Your task to perform on an android device: Go to Reddit.com Image 0: 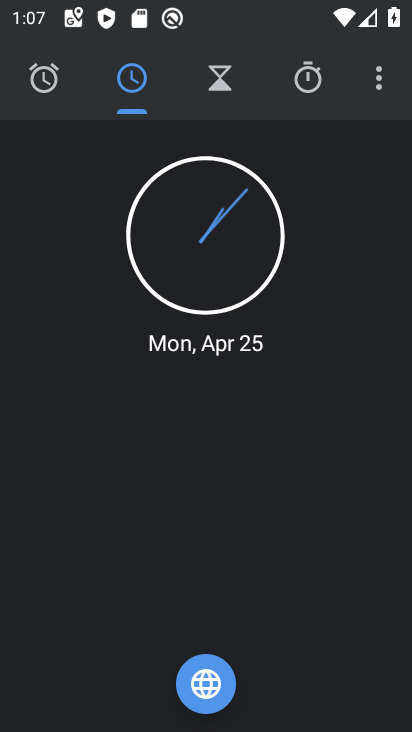
Step 0: press home button
Your task to perform on an android device: Go to Reddit.com Image 1: 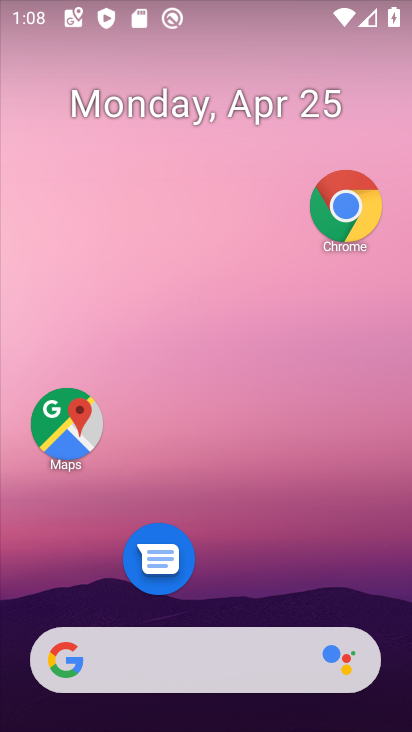
Step 1: click (349, 205)
Your task to perform on an android device: Go to Reddit.com Image 2: 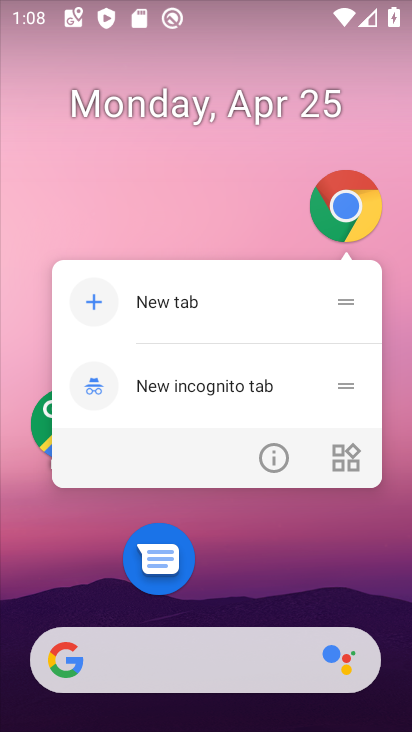
Step 2: click (346, 211)
Your task to perform on an android device: Go to Reddit.com Image 3: 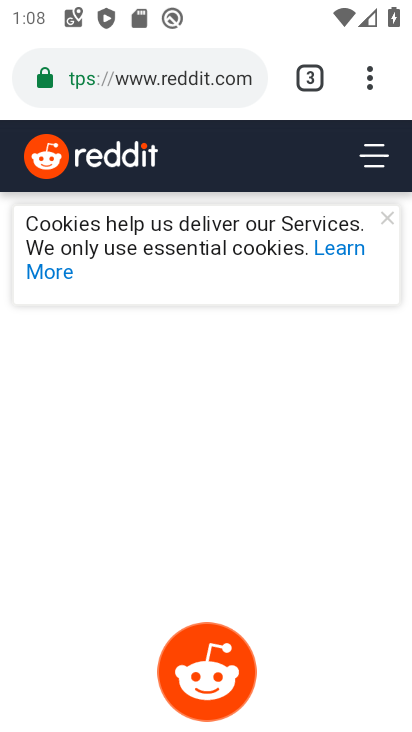
Step 3: task complete